Your task to perform on an android device: Open CNN.com Image 0: 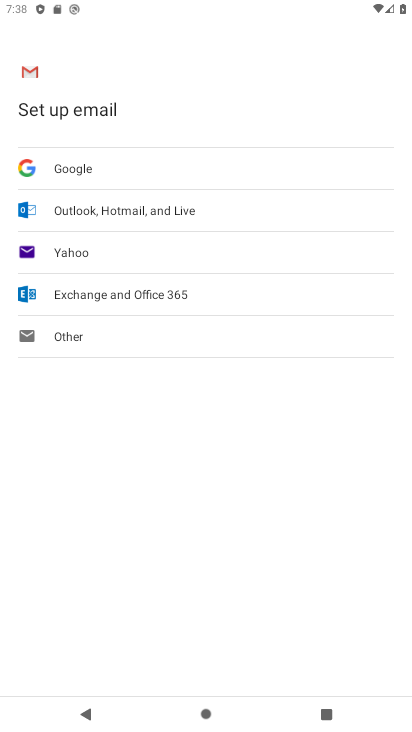
Step 0: press home button
Your task to perform on an android device: Open CNN.com Image 1: 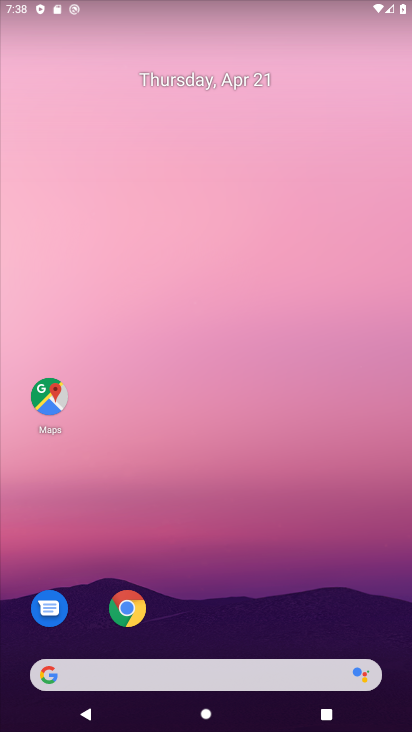
Step 1: click (130, 597)
Your task to perform on an android device: Open CNN.com Image 2: 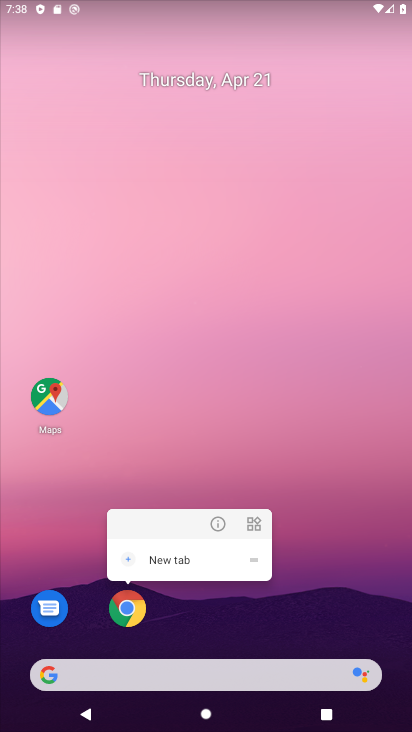
Step 2: click (218, 526)
Your task to perform on an android device: Open CNN.com Image 3: 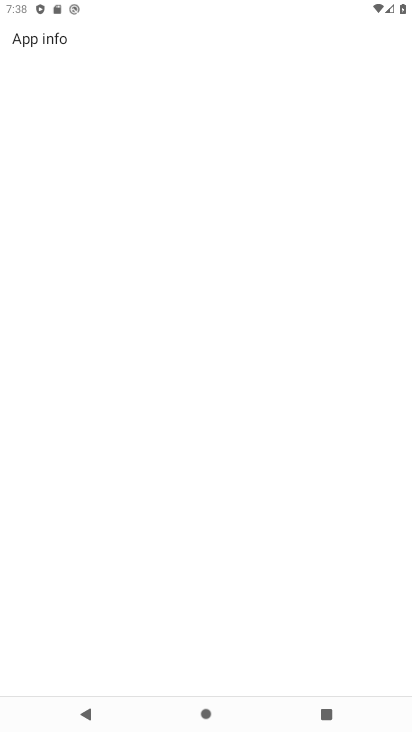
Step 3: click (58, 268)
Your task to perform on an android device: Open CNN.com Image 4: 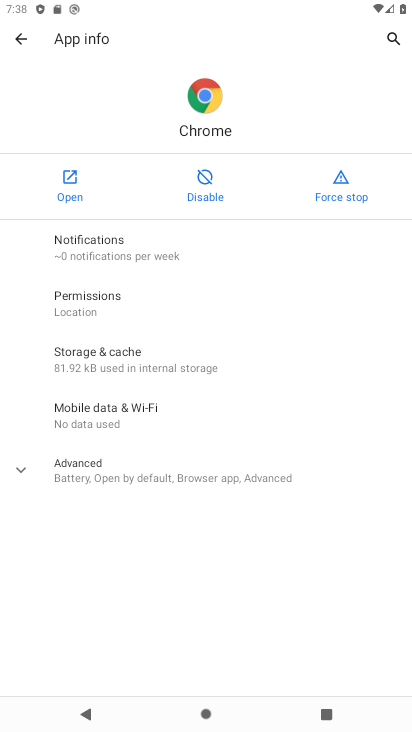
Step 4: click (77, 191)
Your task to perform on an android device: Open CNN.com Image 5: 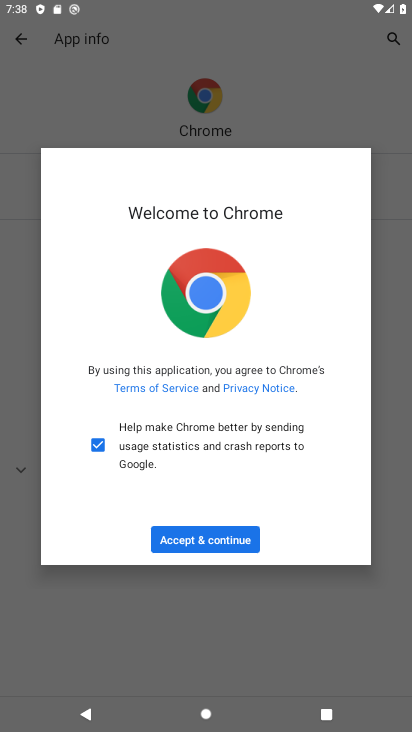
Step 5: click (210, 535)
Your task to perform on an android device: Open CNN.com Image 6: 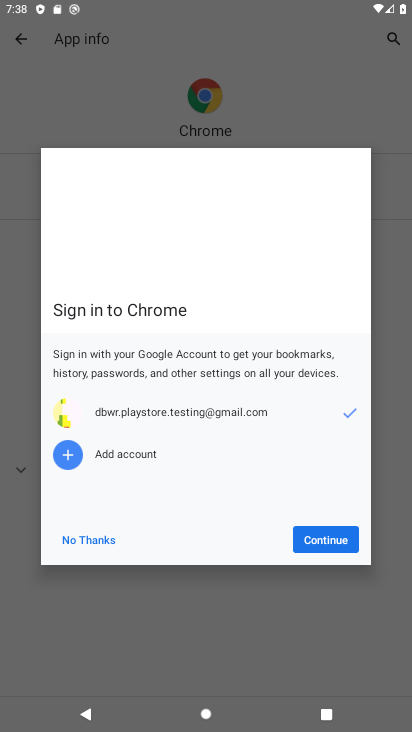
Step 6: click (311, 544)
Your task to perform on an android device: Open CNN.com Image 7: 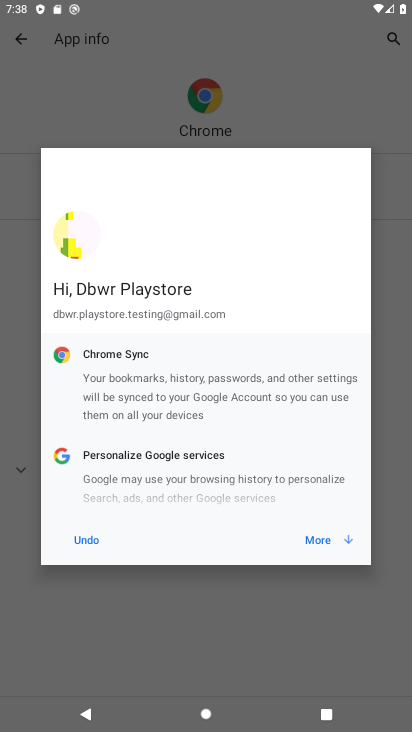
Step 7: click (311, 544)
Your task to perform on an android device: Open CNN.com Image 8: 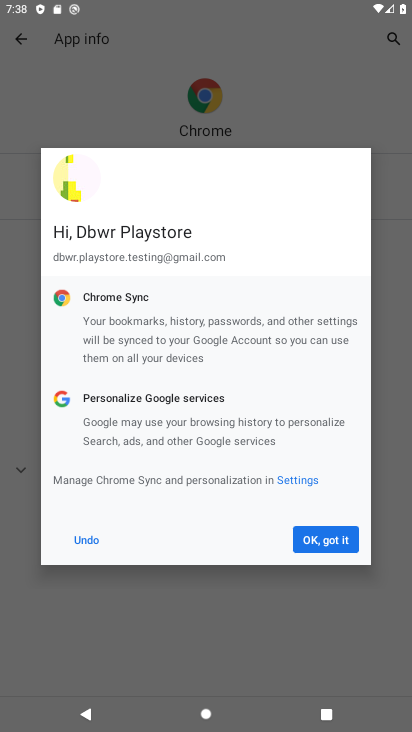
Step 8: click (311, 544)
Your task to perform on an android device: Open CNN.com Image 9: 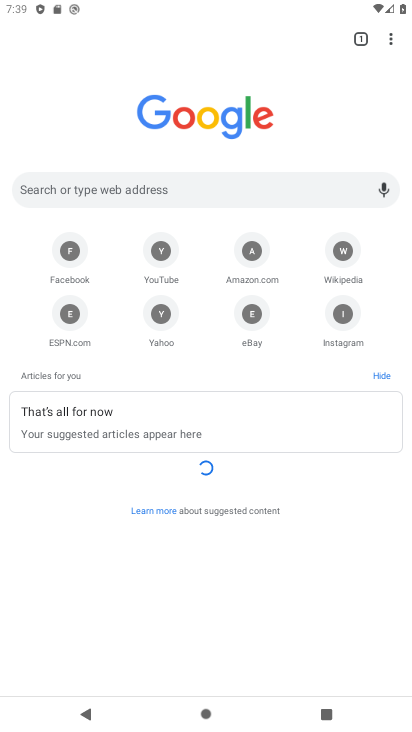
Step 9: click (209, 194)
Your task to perform on an android device: Open CNN.com Image 10: 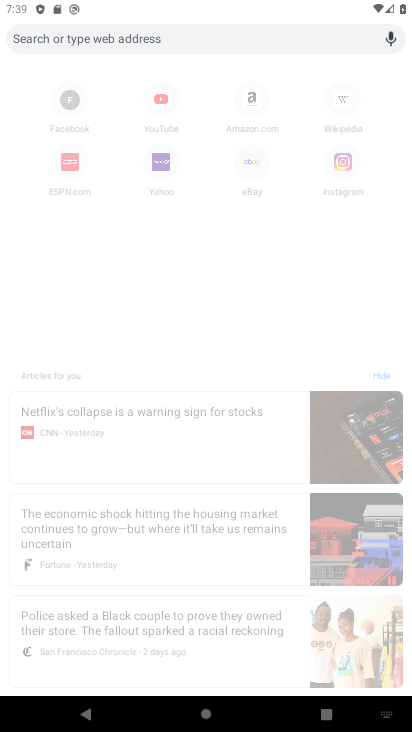
Step 10: type "CNN.com"
Your task to perform on an android device: Open CNN.com Image 11: 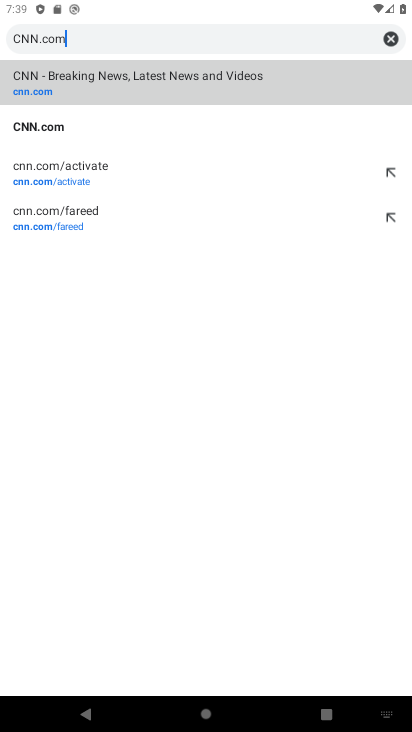
Step 11: click (34, 130)
Your task to perform on an android device: Open CNN.com Image 12: 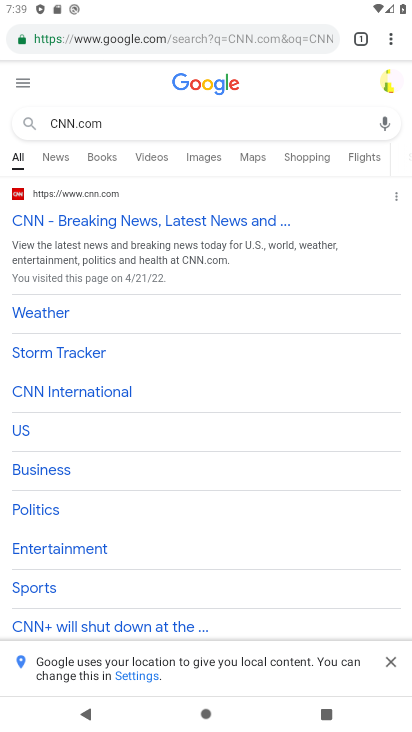
Step 12: task complete